Your task to perform on an android device: Search for the best selling book on Amazon. Image 0: 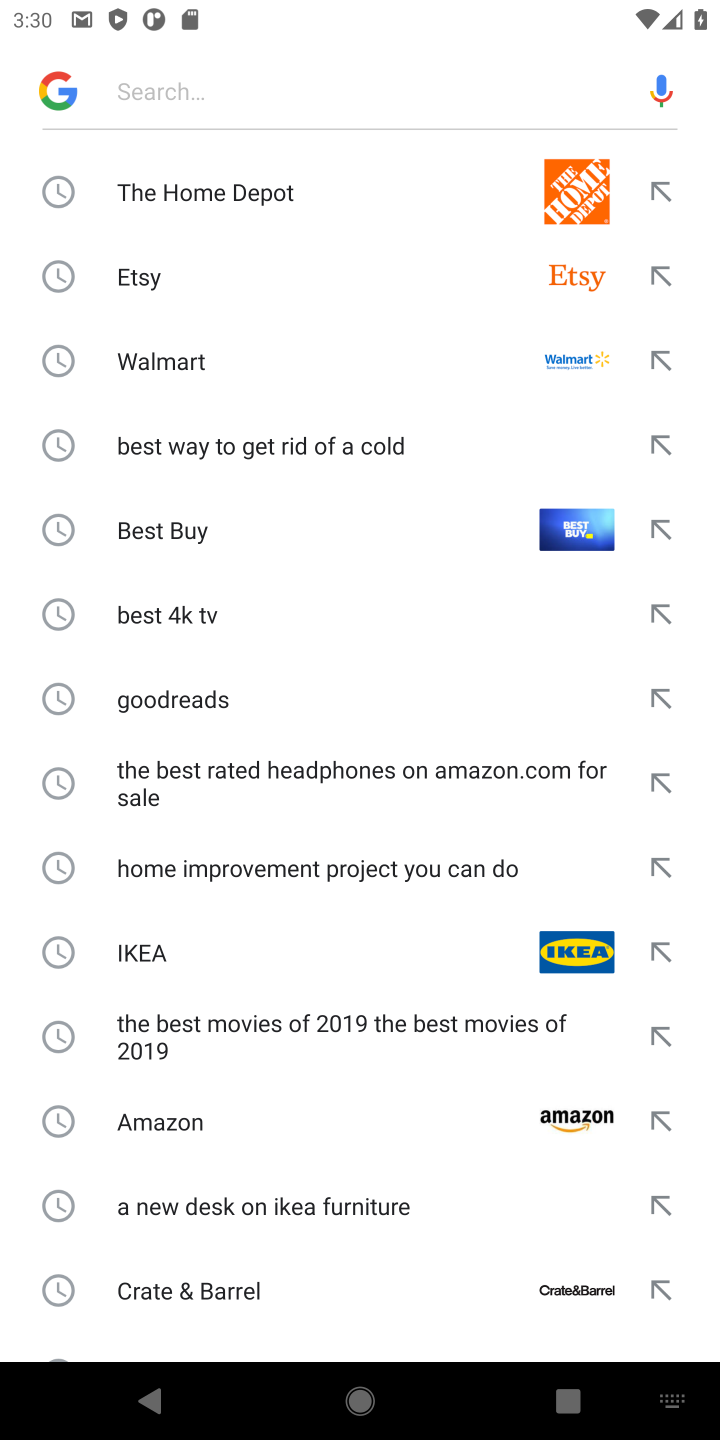
Step 0: press home button
Your task to perform on an android device: Search for the best selling book on Amazon. Image 1: 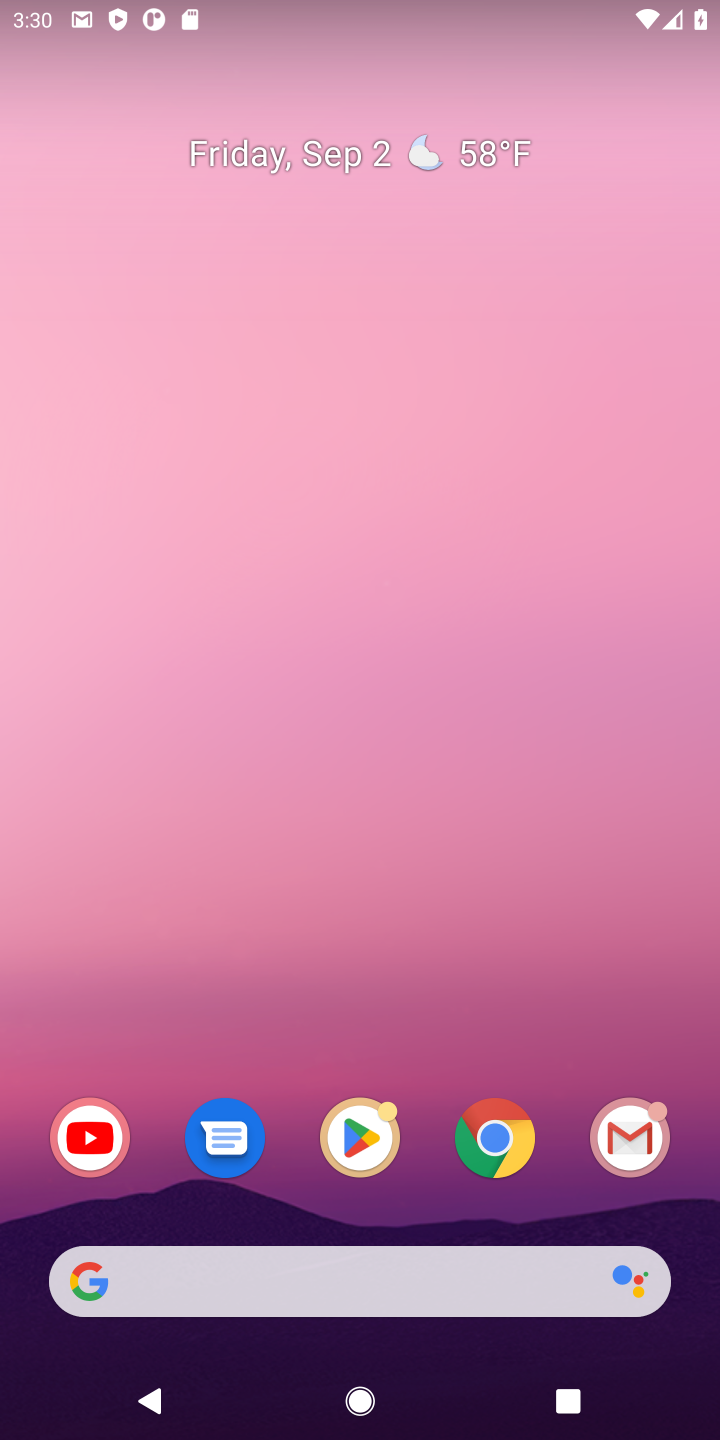
Step 1: click (532, 1144)
Your task to perform on an android device: Search for the best selling book on Amazon. Image 2: 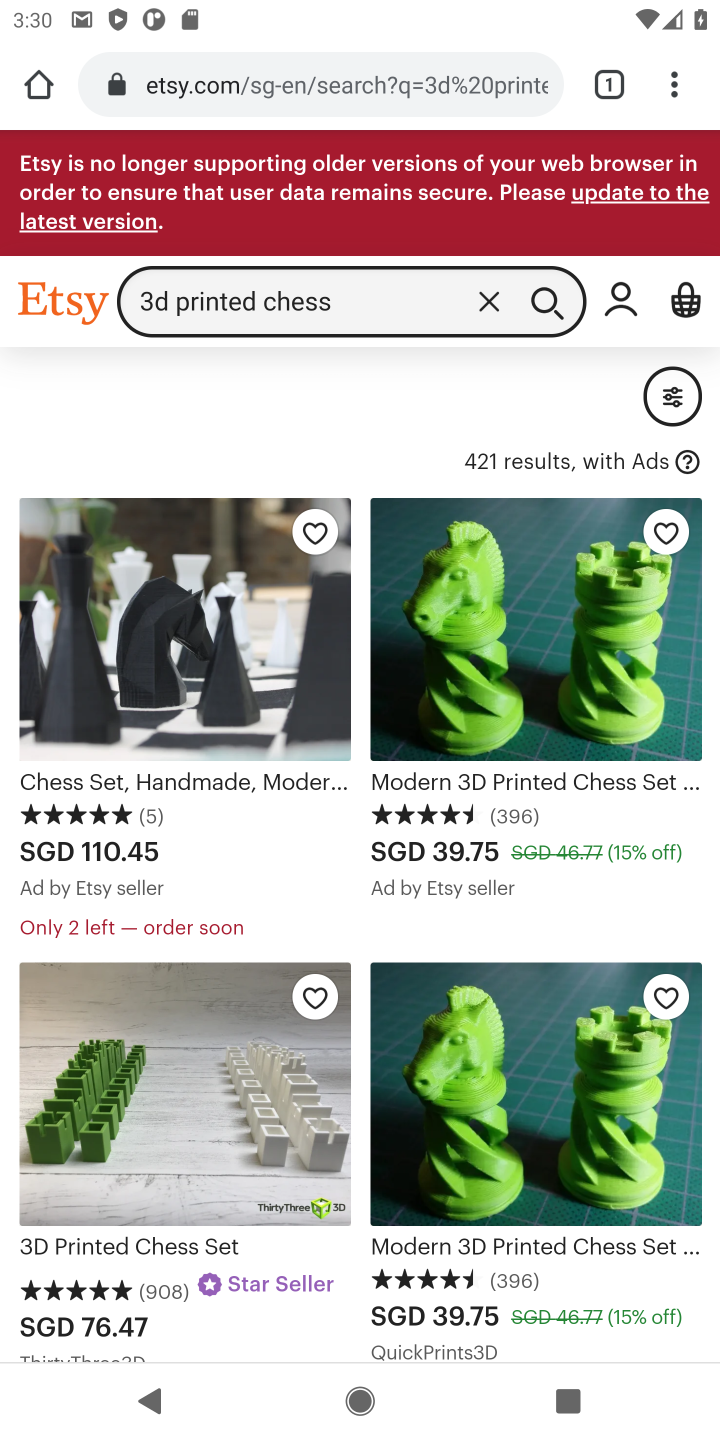
Step 2: click (496, 85)
Your task to perform on an android device: Search for the best selling book on Amazon. Image 3: 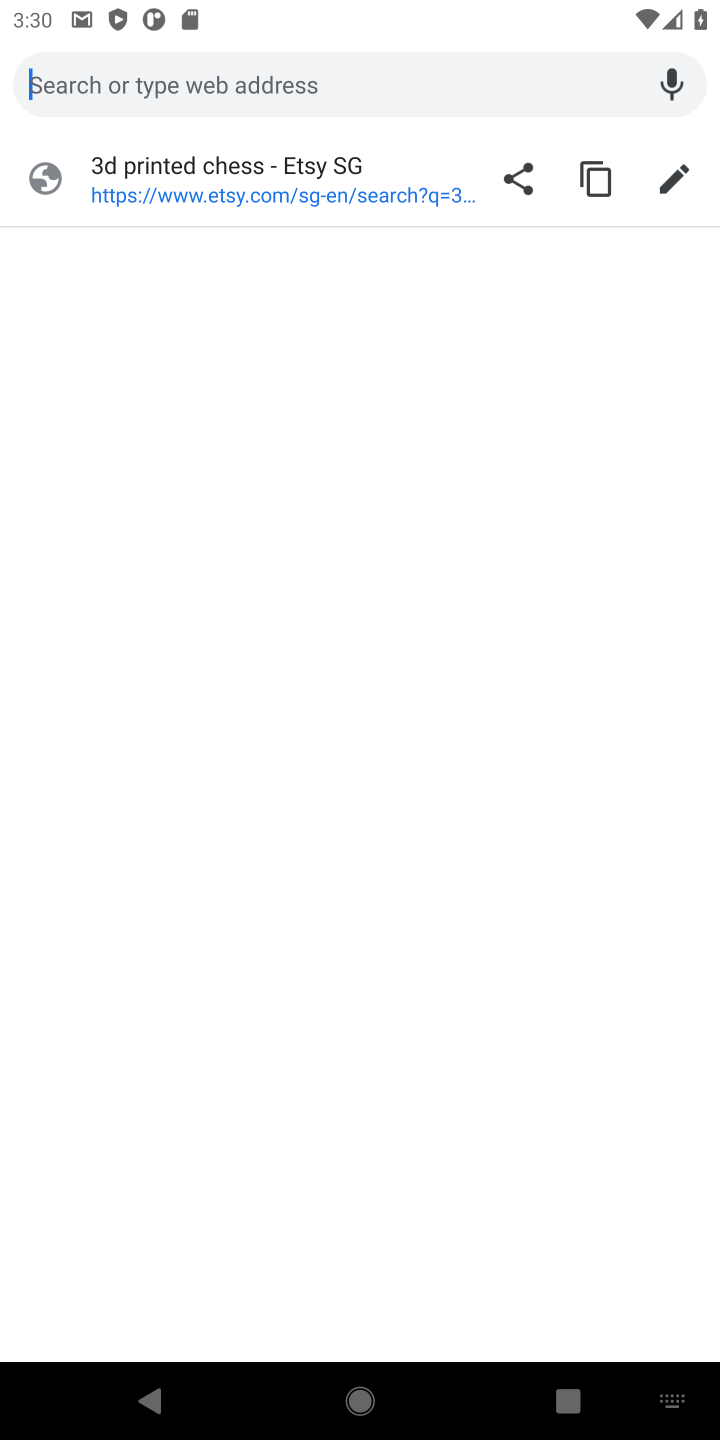
Step 3: type "amazon"
Your task to perform on an android device: Search for the best selling book on Amazon. Image 4: 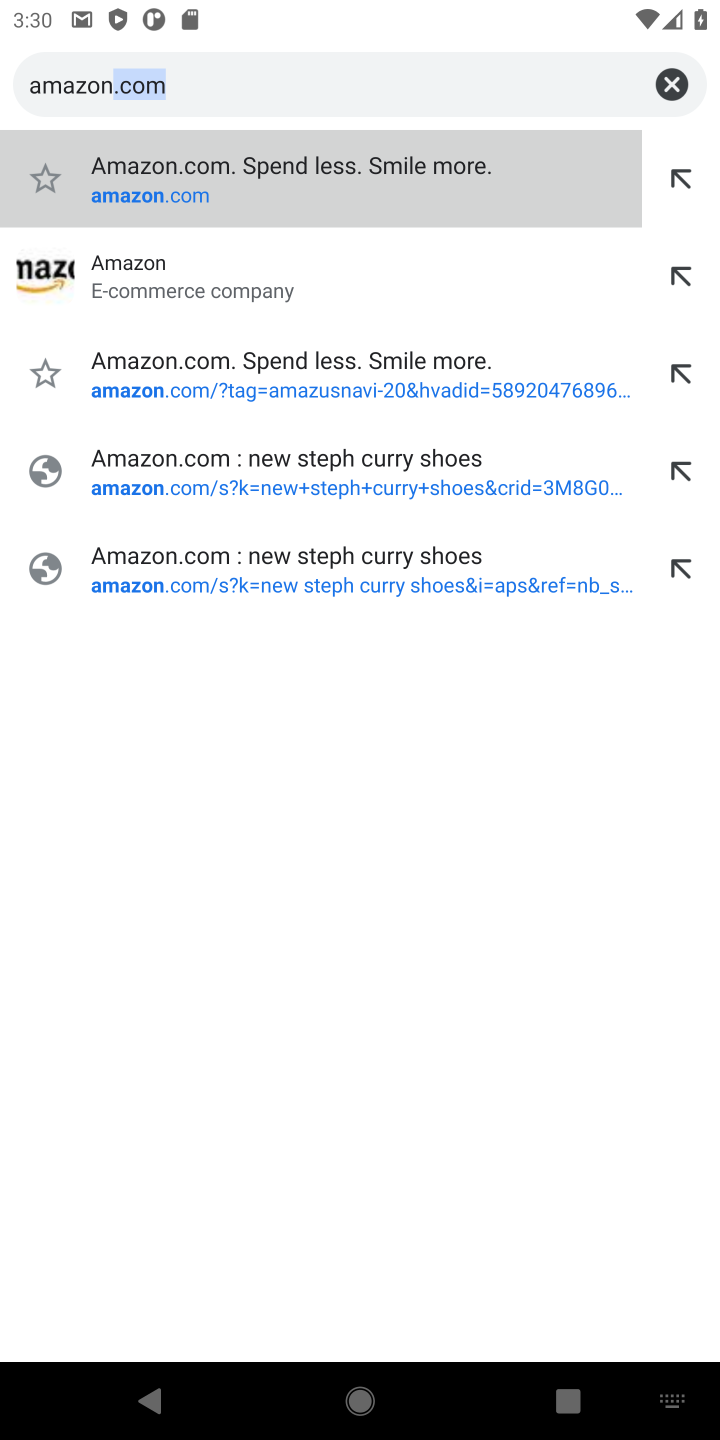
Step 4: click (167, 176)
Your task to perform on an android device: Search for the best selling book on Amazon. Image 5: 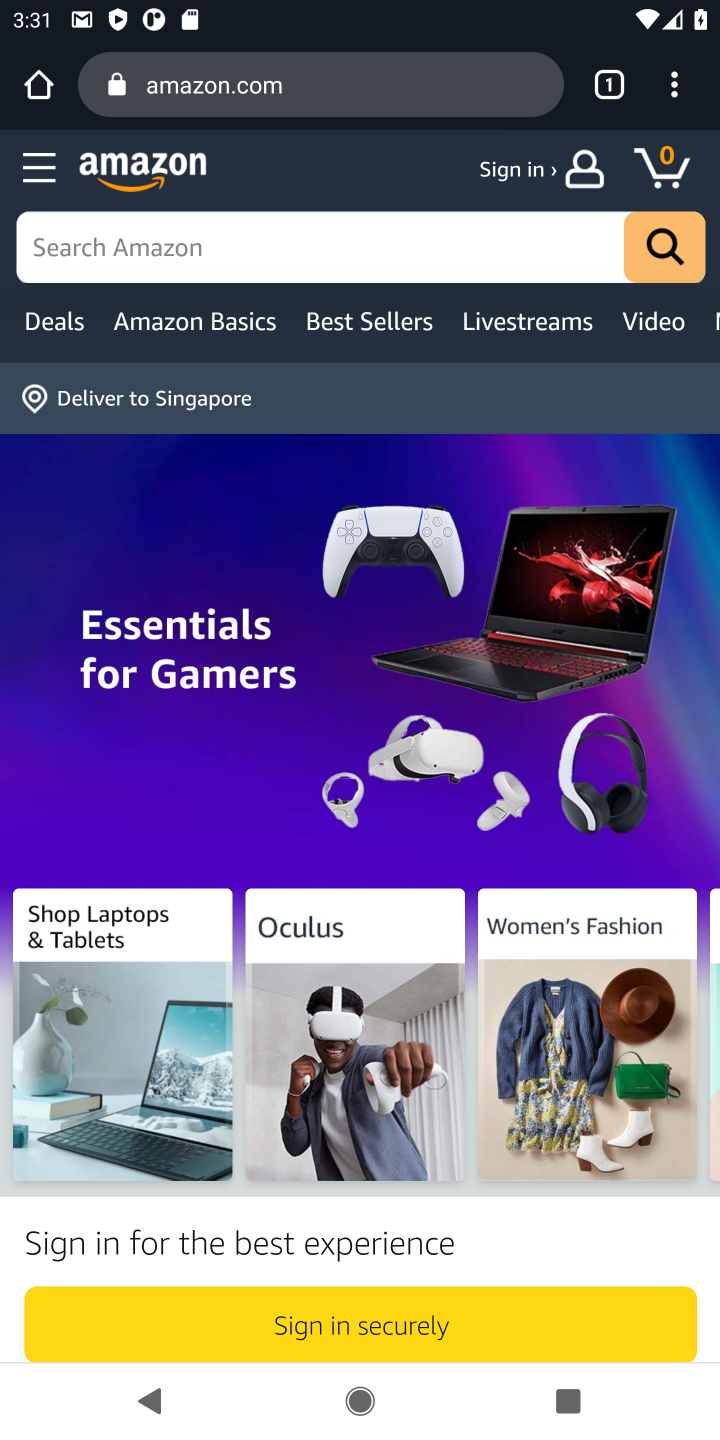
Step 5: click (340, 330)
Your task to perform on an android device: Search for the best selling book on Amazon. Image 6: 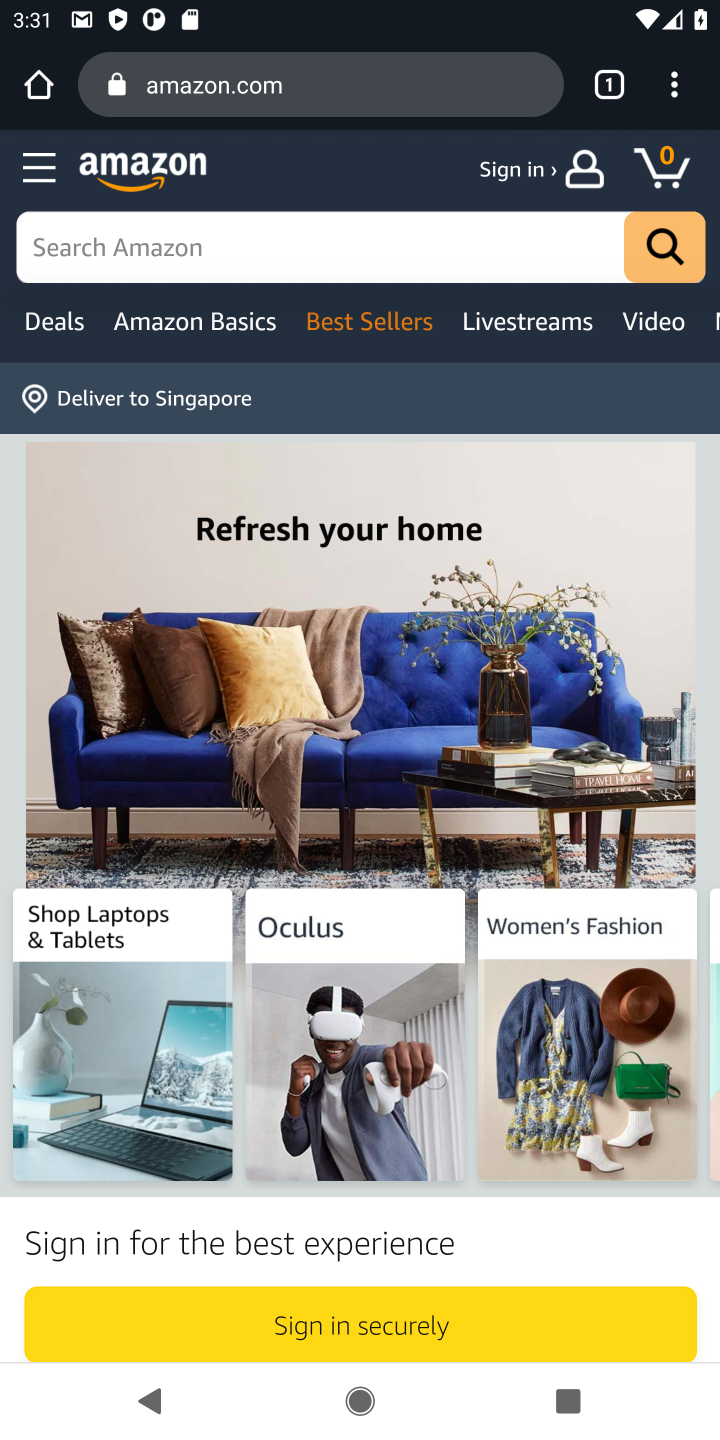
Step 6: drag from (453, 673) to (468, 1234)
Your task to perform on an android device: Search for the best selling book on Amazon. Image 7: 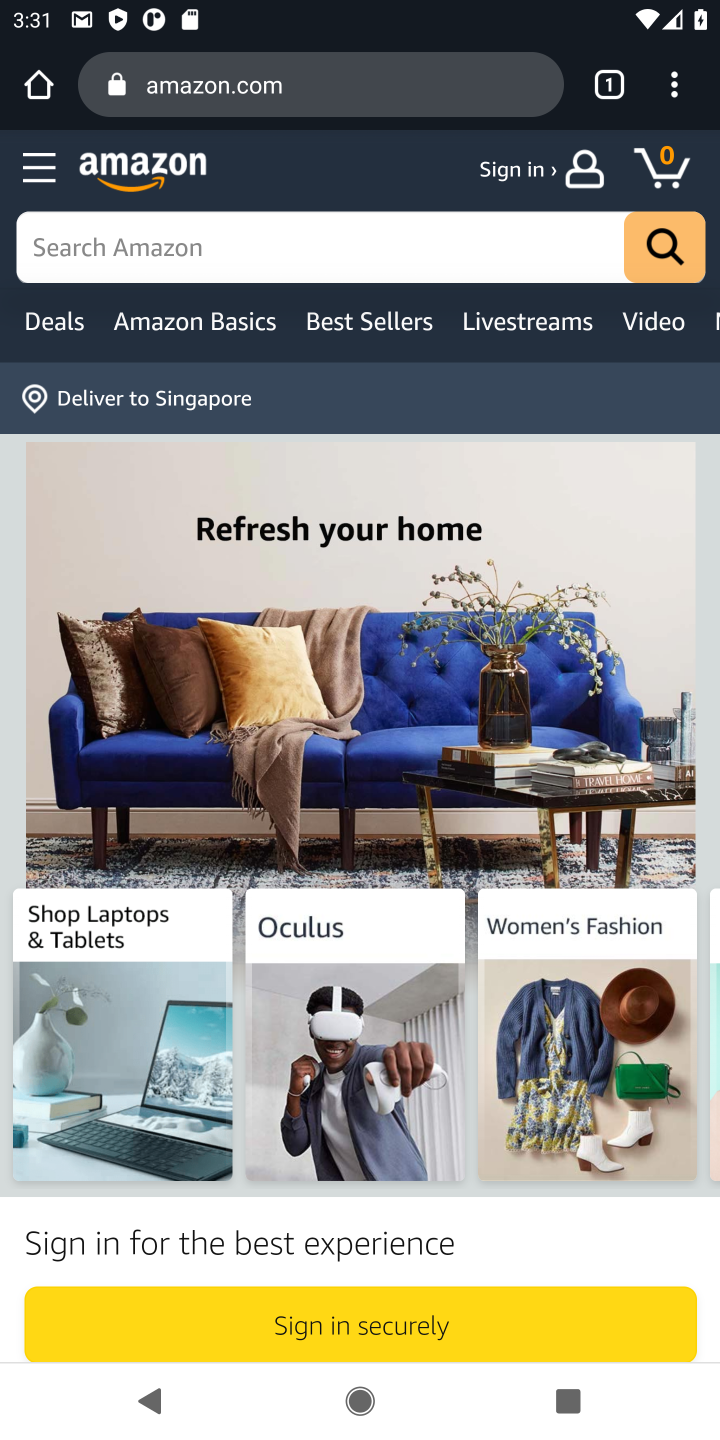
Step 7: click (101, 243)
Your task to perform on an android device: Search for the best selling book on Amazon. Image 8: 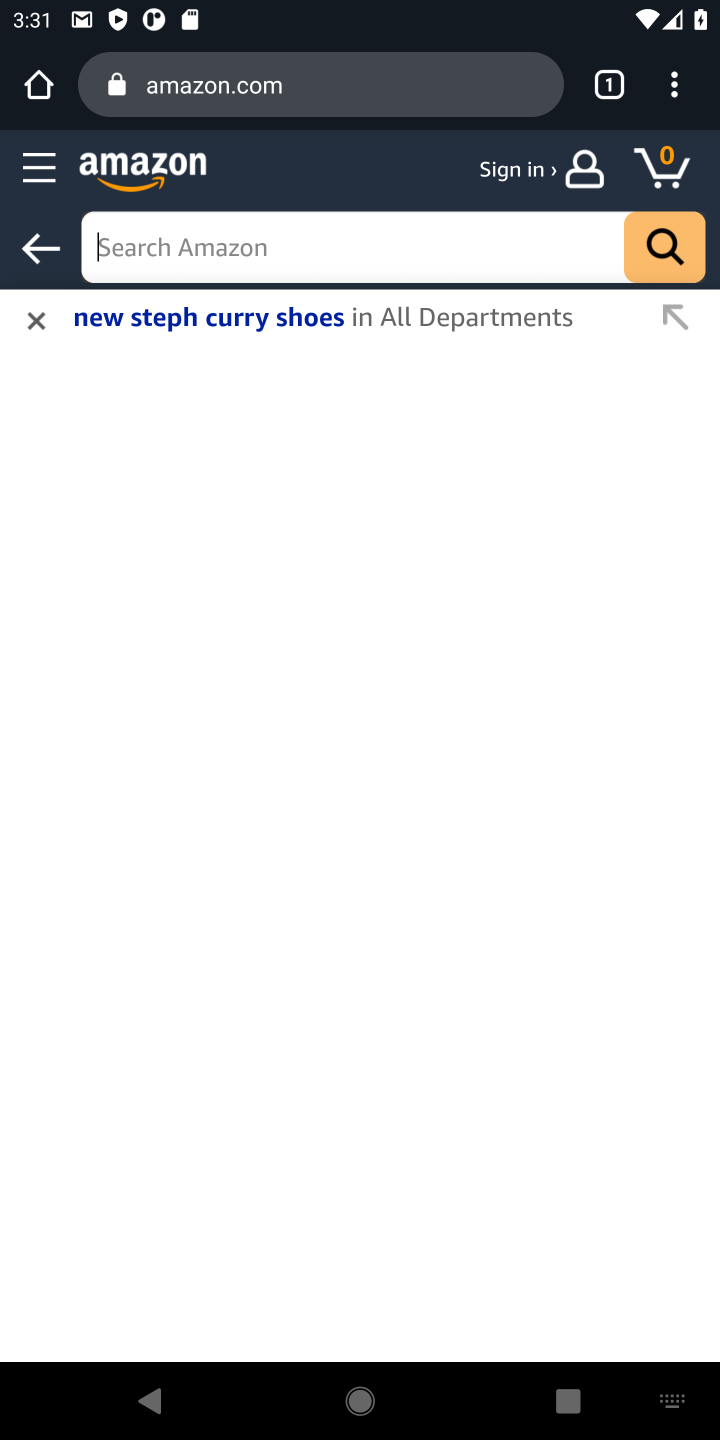
Step 8: type "best selling book"
Your task to perform on an android device: Search for the best selling book on Amazon. Image 9: 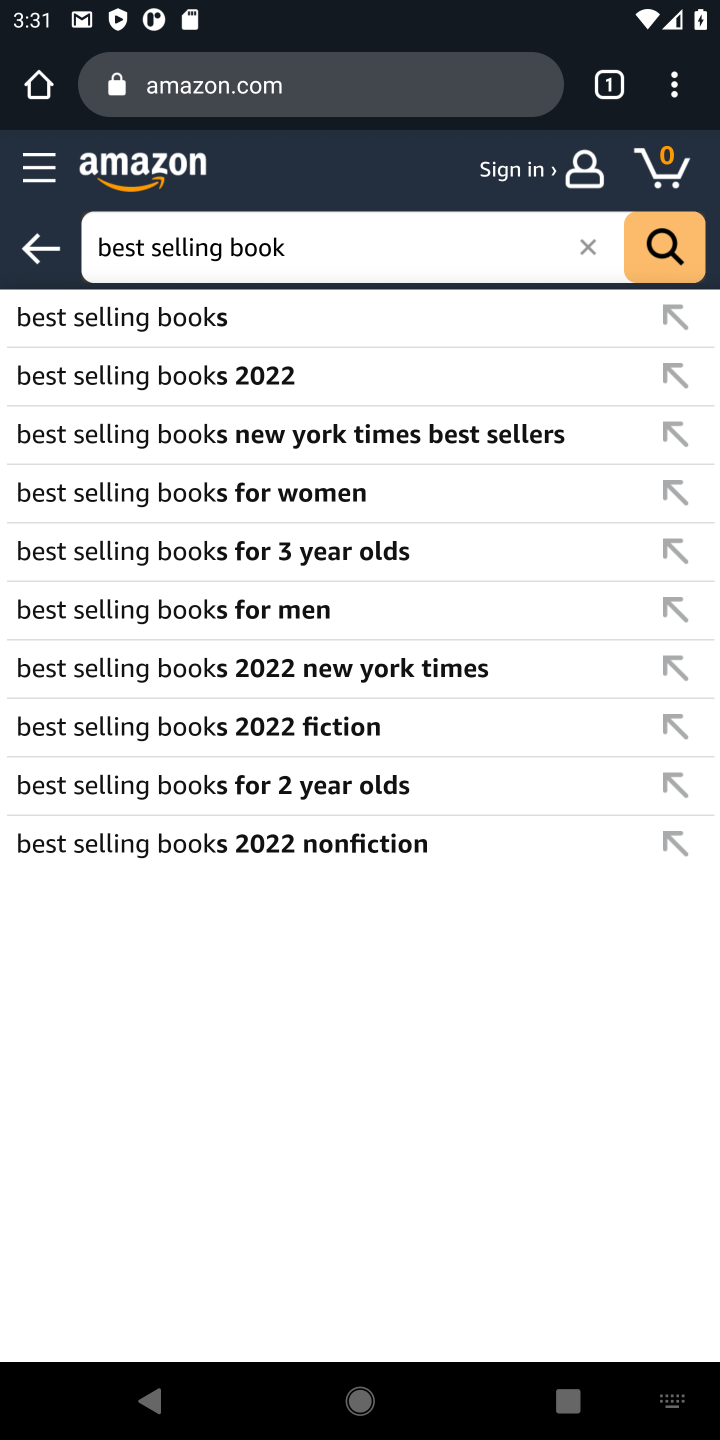
Step 9: press enter
Your task to perform on an android device: Search for the best selling book on Amazon. Image 10: 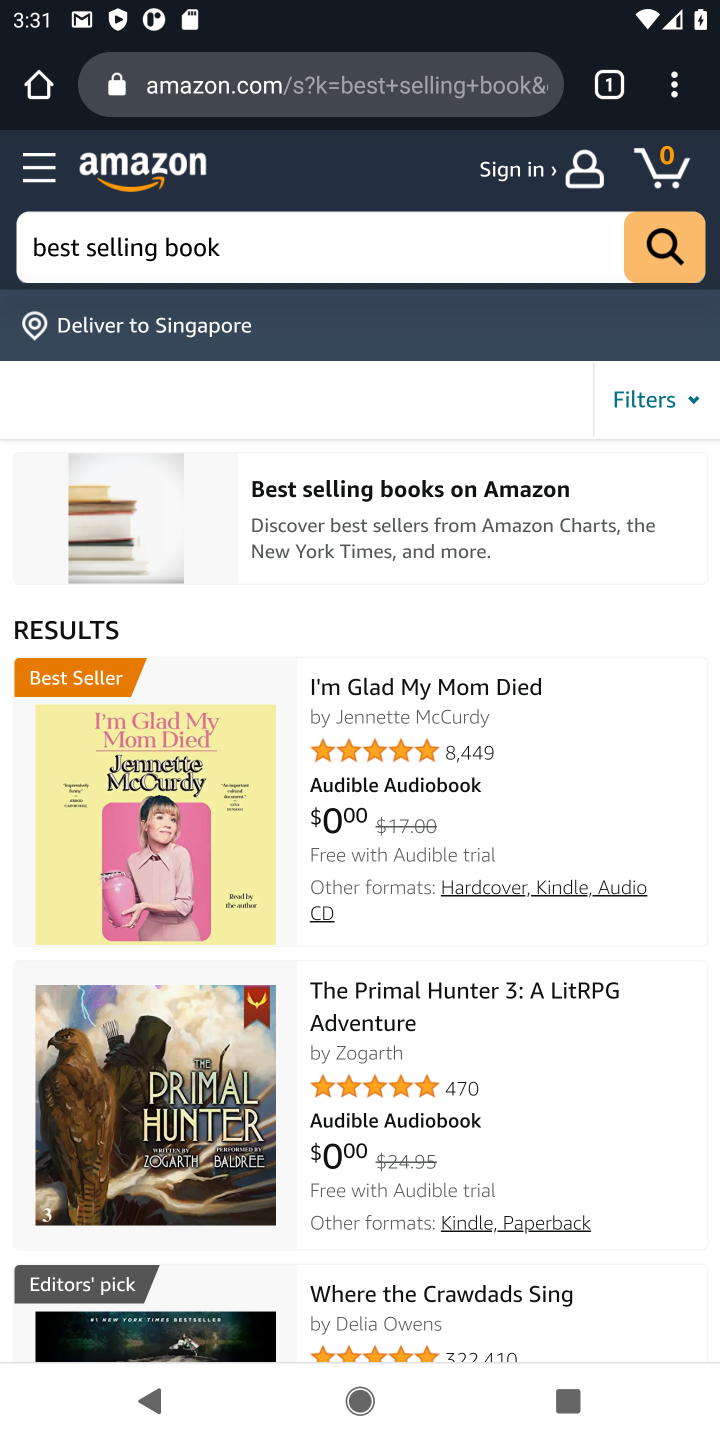
Step 10: task complete